Your task to perform on an android device: turn on wifi Image 0: 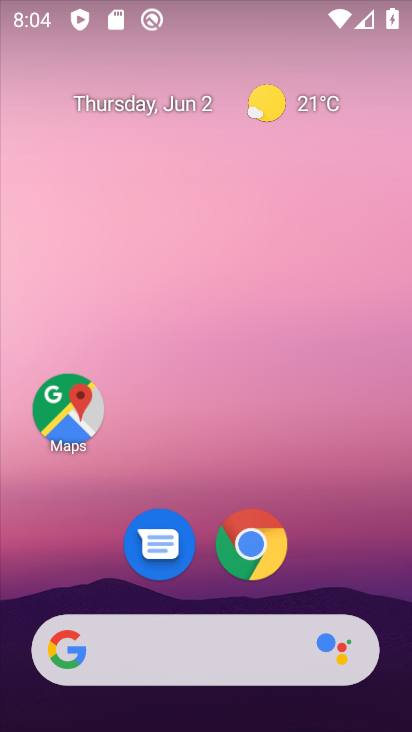
Step 0: drag from (352, 567) to (234, 154)
Your task to perform on an android device: turn on wifi Image 1: 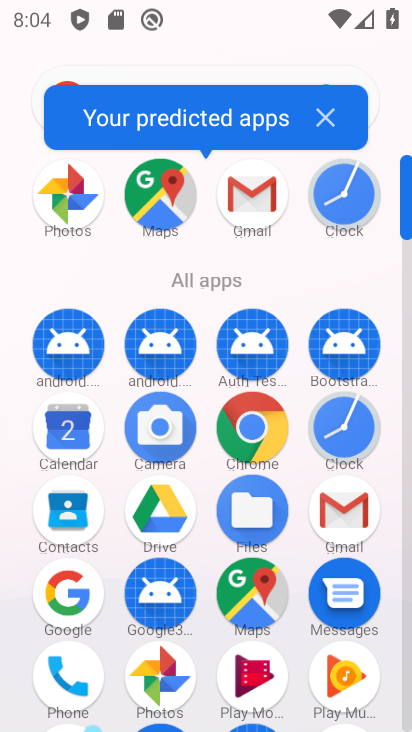
Step 1: click (405, 677)
Your task to perform on an android device: turn on wifi Image 2: 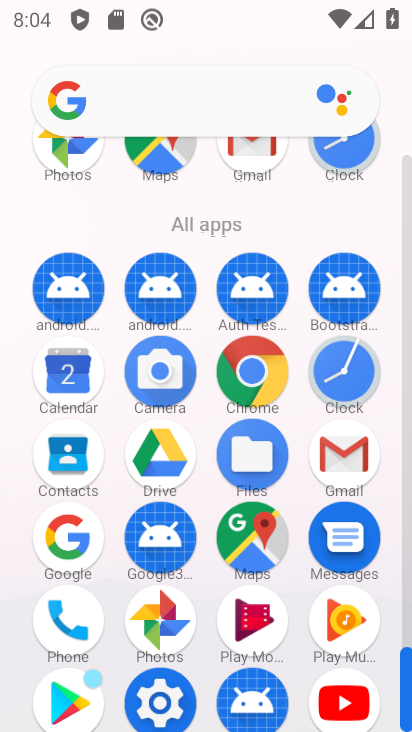
Step 2: click (166, 708)
Your task to perform on an android device: turn on wifi Image 3: 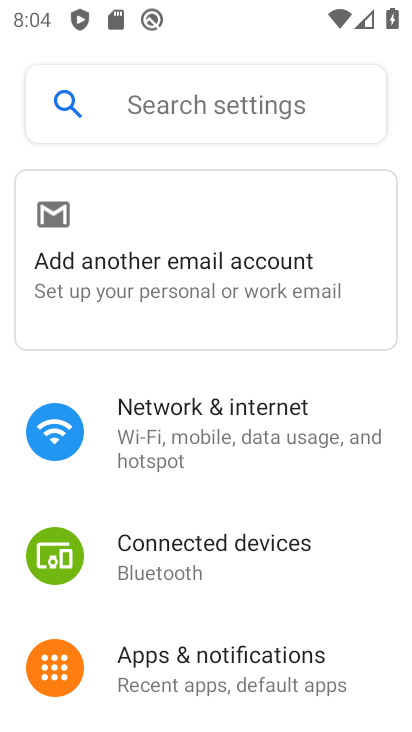
Step 3: click (301, 408)
Your task to perform on an android device: turn on wifi Image 4: 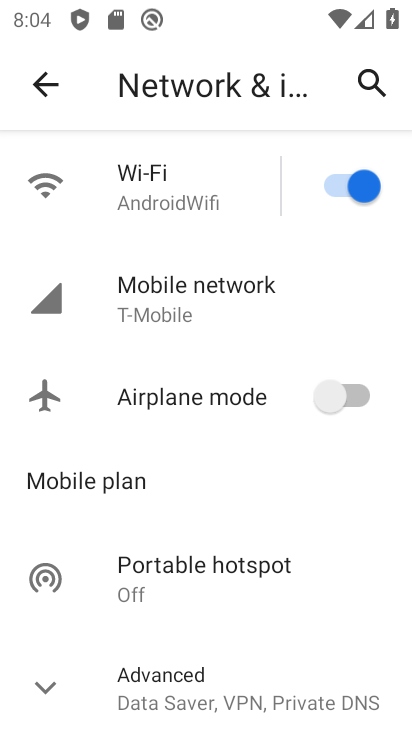
Step 4: task complete